Your task to perform on an android device: check battery use Image 0: 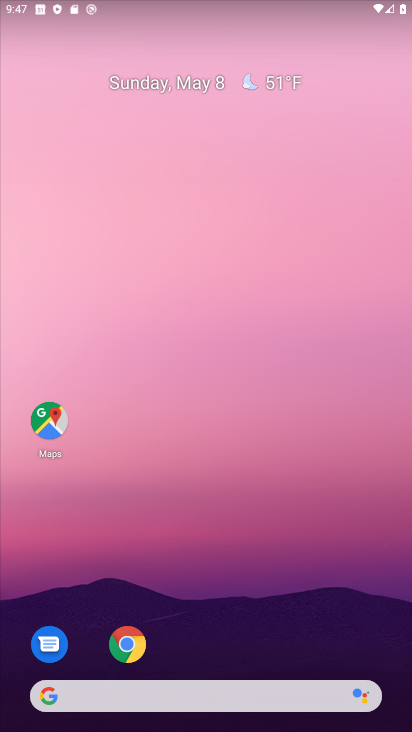
Step 0: drag from (236, 631) to (344, 92)
Your task to perform on an android device: check battery use Image 1: 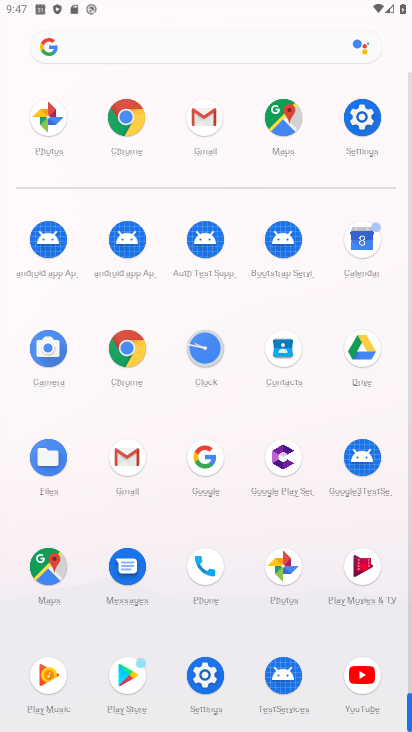
Step 1: click (362, 118)
Your task to perform on an android device: check battery use Image 2: 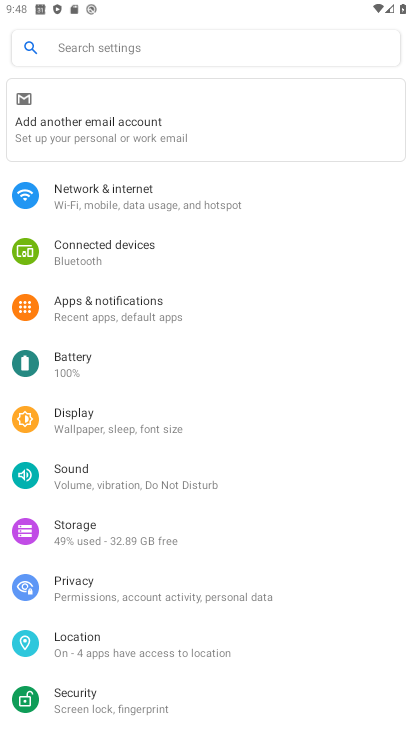
Step 2: click (127, 363)
Your task to perform on an android device: check battery use Image 3: 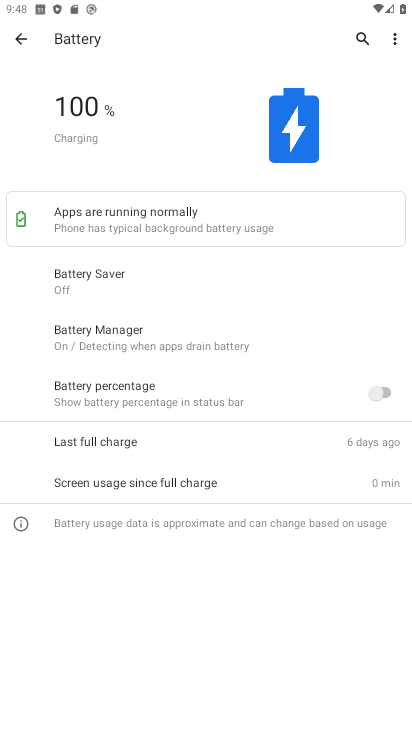
Step 3: click (406, 48)
Your task to perform on an android device: check battery use Image 4: 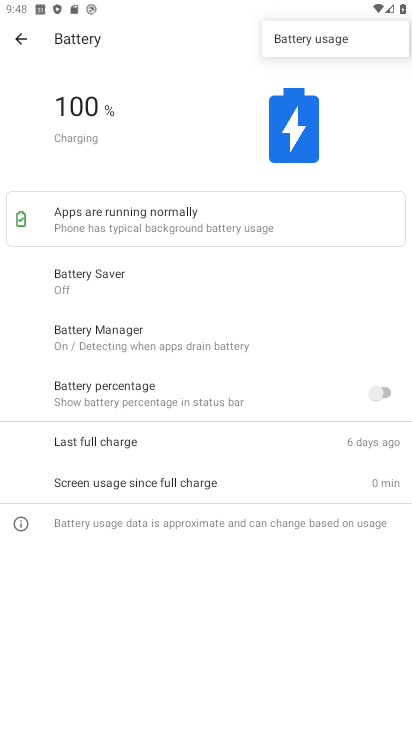
Step 4: click (313, 47)
Your task to perform on an android device: check battery use Image 5: 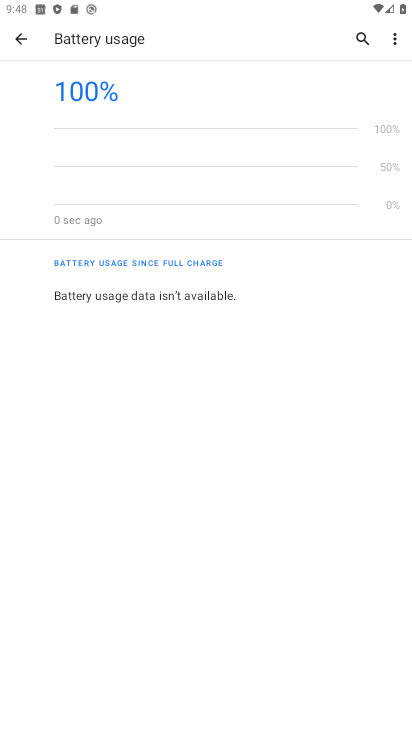
Step 5: task complete